Your task to perform on an android device: What is the news today? Image 0: 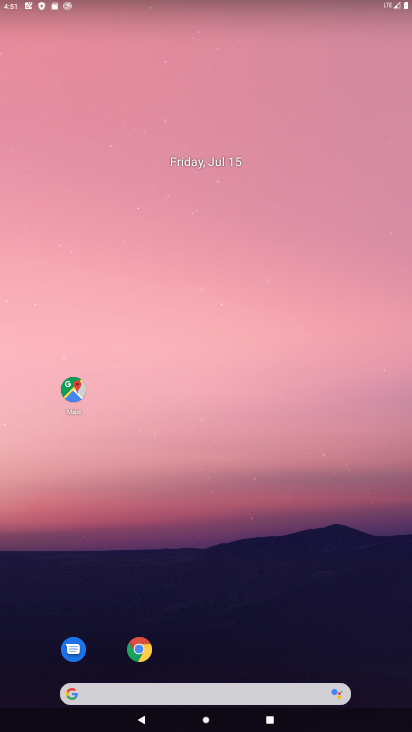
Step 0: drag from (310, 525) to (266, 86)
Your task to perform on an android device: What is the news today? Image 1: 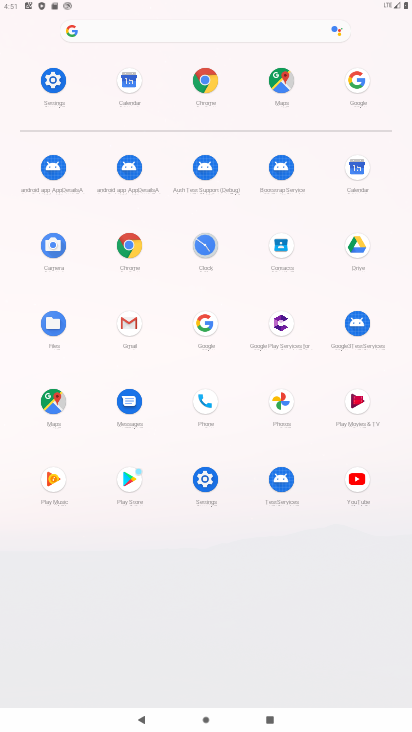
Step 1: click (210, 77)
Your task to perform on an android device: What is the news today? Image 2: 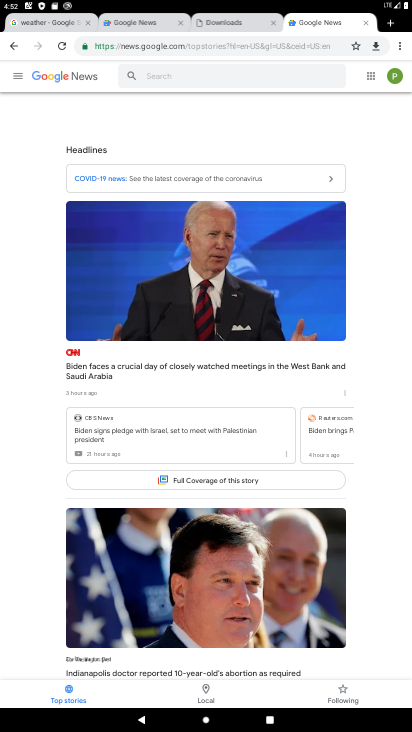
Step 2: task complete